Your task to perform on an android device: move a message to another label in the gmail app Image 0: 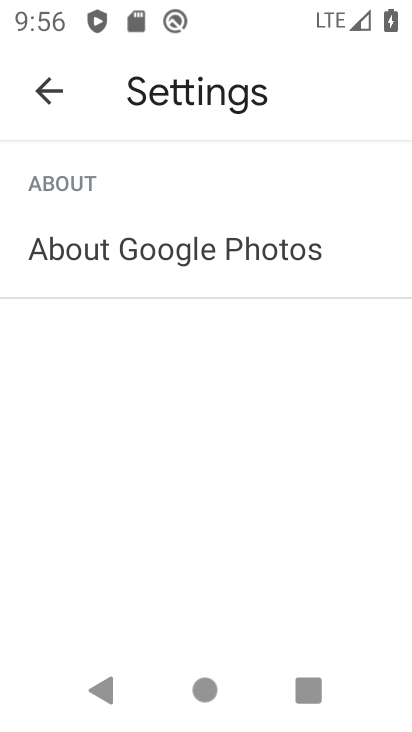
Step 0: press home button
Your task to perform on an android device: move a message to another label in the gmail app Image 1: 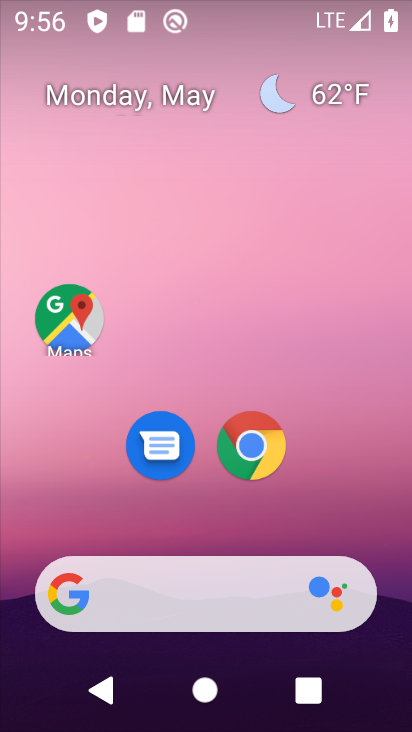
Step 1: drag from (382, 625) to (264, 177)
Your task to perform on an android device: move a message to another label in the gmail app Image 2: 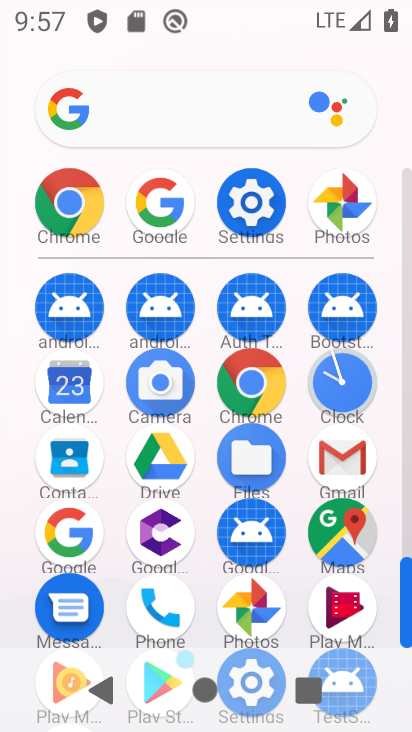
Step 2: click (343, 461)
Your task to perform on an android device: move a message to another label in the gmail app Image 3: 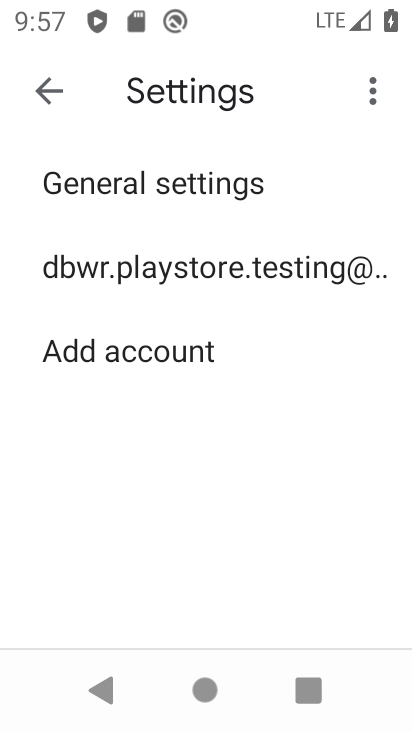
Step 3: task complete